Your task to perform on an android device: turn off notifications settings in the gmail app Image 0: 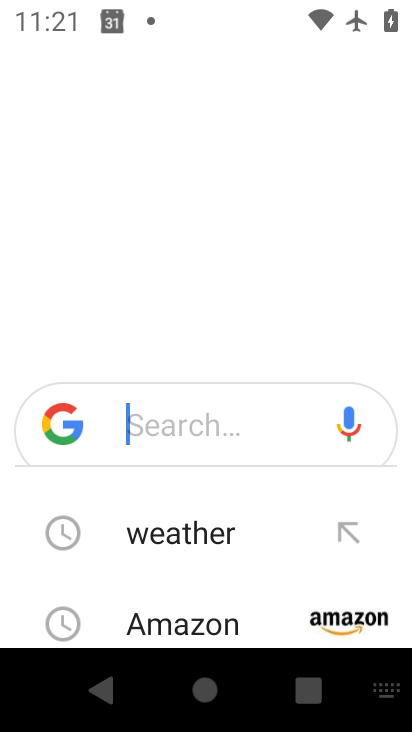
Step 0: press home button
Your task to perform on an android device: turn off notifications settings in the gmail app Image 1: 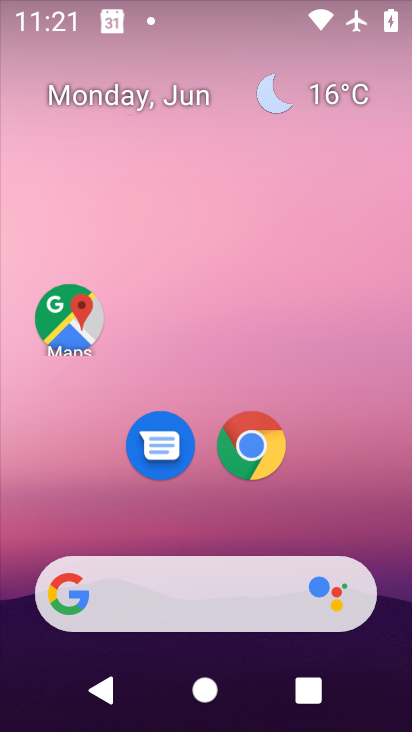
Step 1: drag from (249, 507) to (246, 1)
Your task to perform on an android device: turn off notifications settings in the gmail app Image 2: 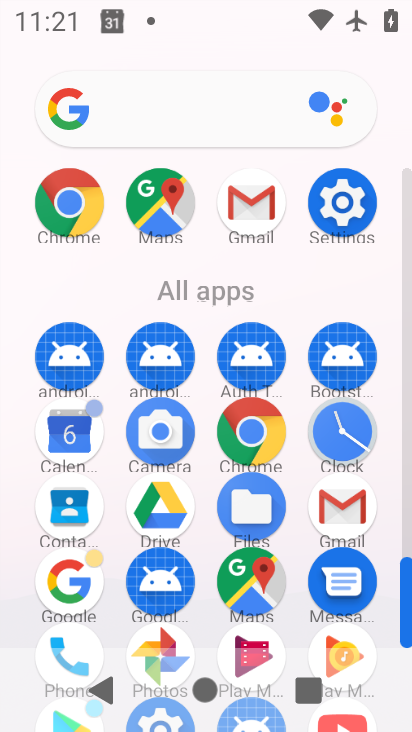
Step 2: click (262, 202)
Your task to perform on an android device: turn off notifications settings in the gmail app Image 3: 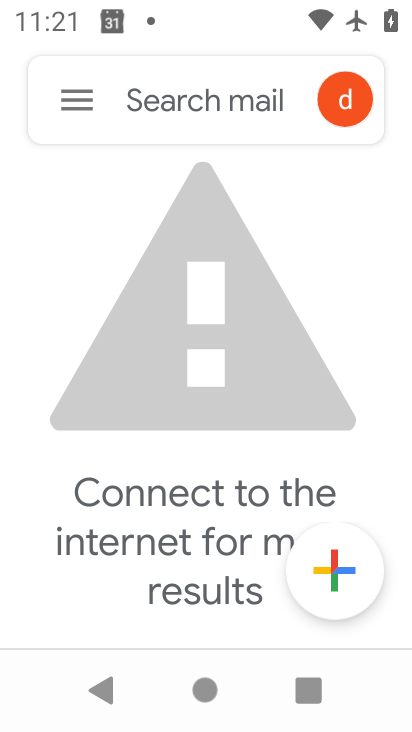
Step 3: click (68, 99)
Your task to perform on an android device: turn off notifications settings in the gmail app Image 4: 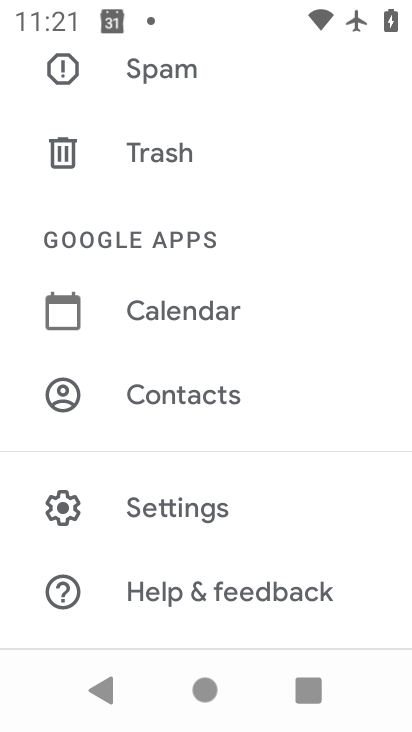
Step 4: click (189, 521)
Your task to perform on an android device: turn off notifications settings in the gmail app Image 5: 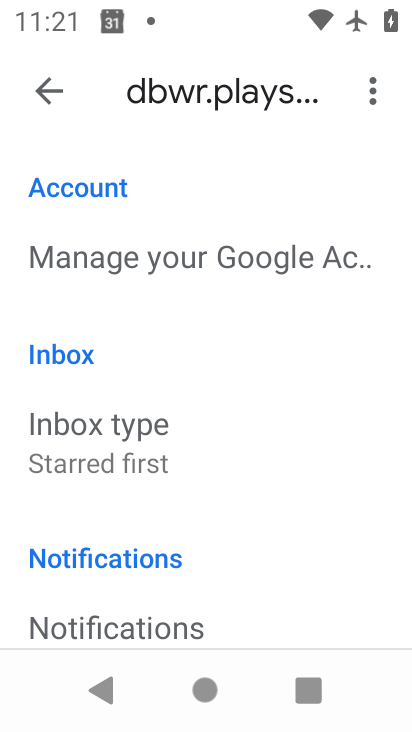
Step 5: click (38, 79)
Your task to perform on an android device: turn off notifications settings in the gmail app Image 6: 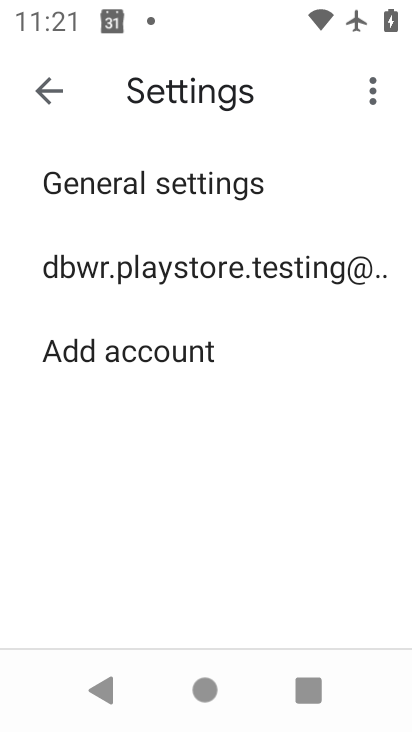
Step 6: click (170, 201)
Your task to perform on an android device: turn off notifications settings in the gmail app Image 7: 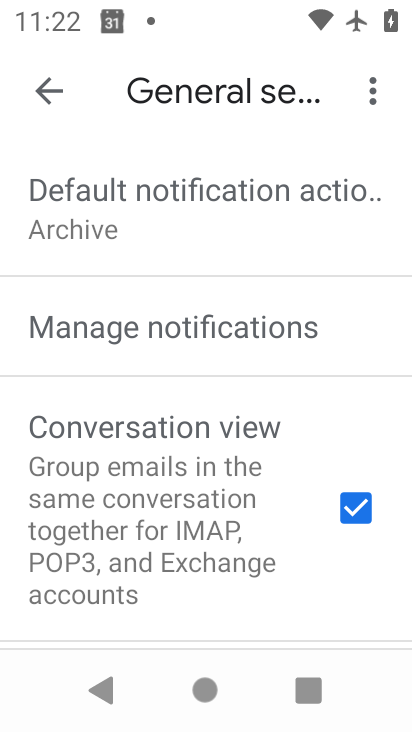
Step 7: click (173, 331)
Your task to perform on an android device: turn off notifications settings in the gmail app Image 8: 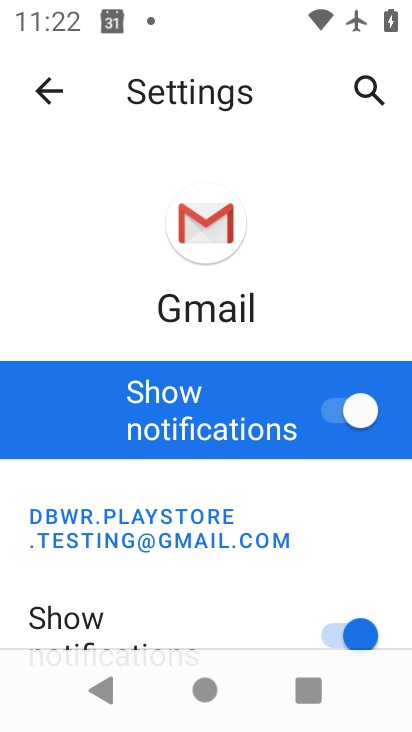
Step 8: click (363, 417)
Your task to perform on an android device: turn off notifications settings in the gmail app Image 9: 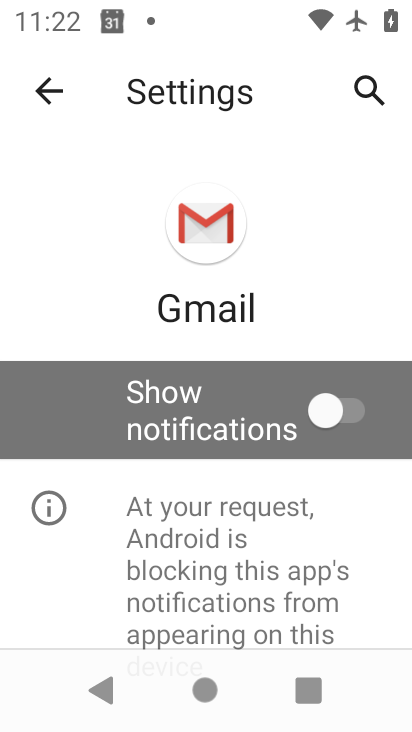
Step 9: task complete